Your task to perform on an android device: empty trash in the gmail app Image 0: 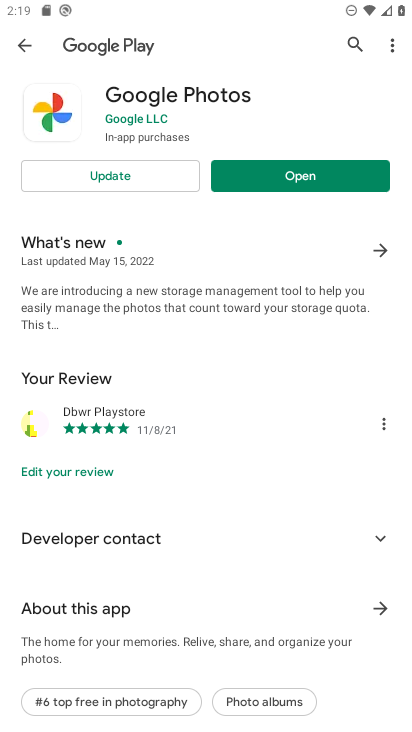
Step 0: press home button
Your task to perform on an android device: empty trash in the gmail app Image 1: 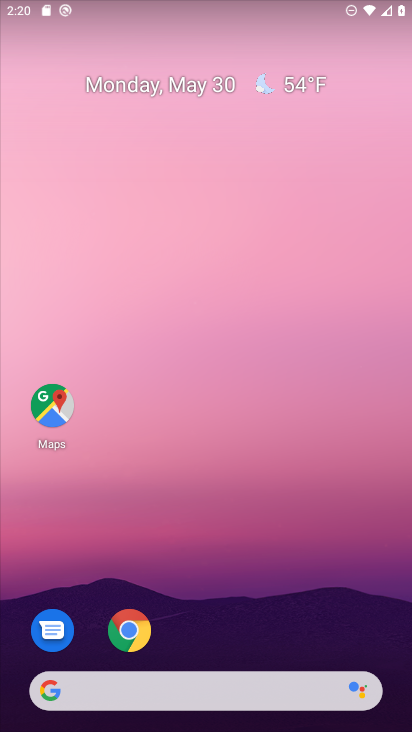
Step 1: drag from (150, 692) to (313, 55)
Your task to perform on an android device: empty trash in the gmail app Image 2: 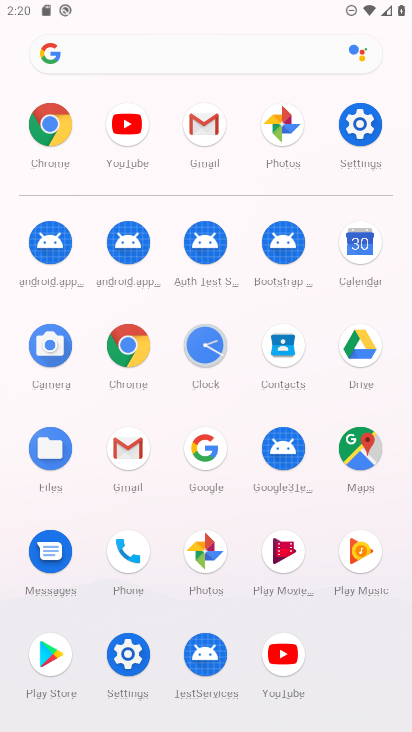
Step 2: click (203, 141)
Your task to perform on an android device: empty trash in the gmail app Image 3: 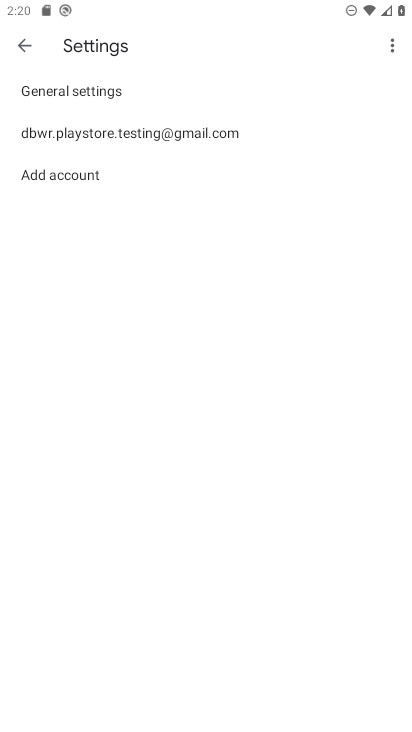
Step 3: click (22, 48)
Your task to perform on an android device: empty trash in the gmail app Image 4: 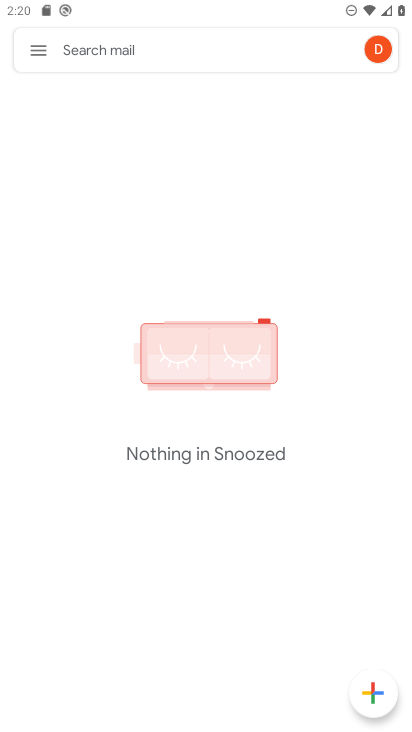
Step 4: click (38, 49)
Your task to perform on an android device: empty trash in the gmail app Image 5: 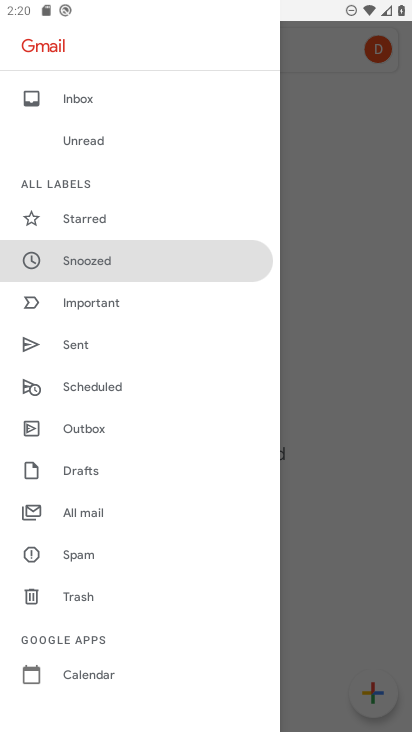
Step 5: click (74, 596)
Your task to perform on an android device: empty trash in the gmail app Image 6: 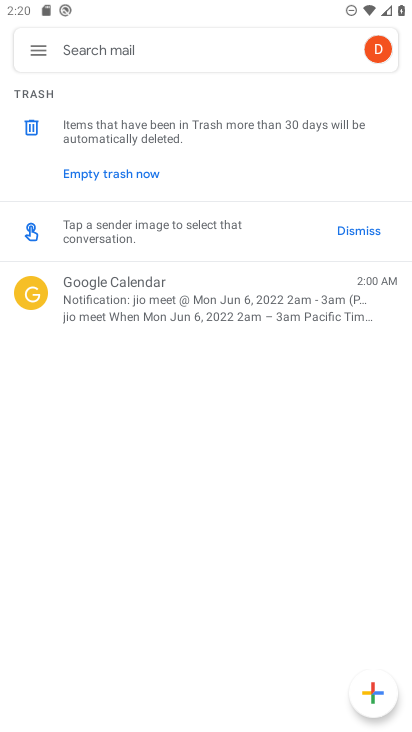
Step 6: click (104, 165)
Your task to perform on an android device: empty trash in the gmail app Image 7: 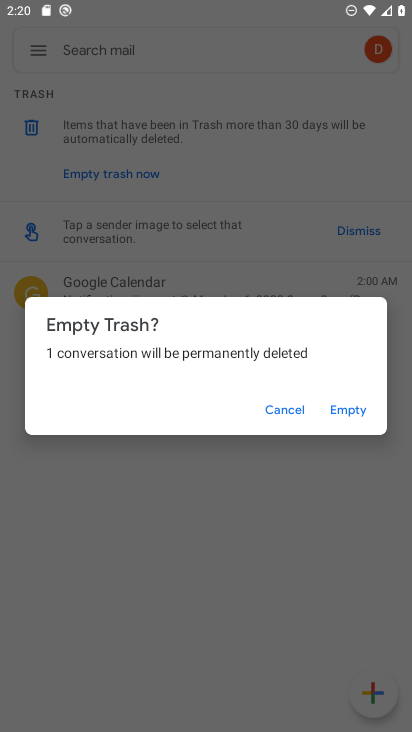
Step 7: click (354, 414)
Your task to perform on an android device: empty trash in the gmail app Image 8: 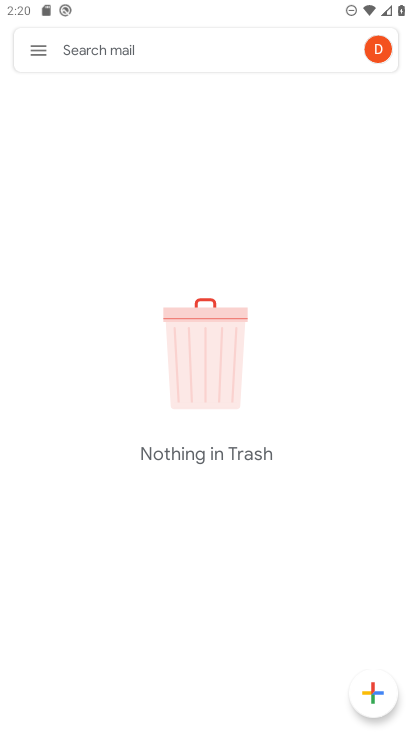
Step 8: task complete